Your task to perform on an android device: Open eBay Image 0: 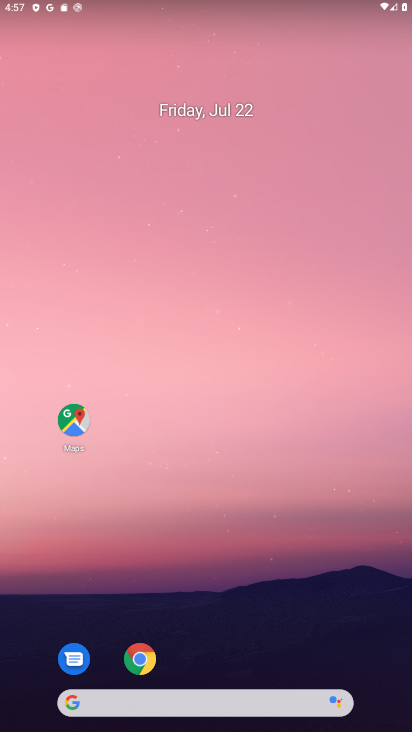
Step 0: press home button
Your task to perform on an android device: Open eBay Image 1: 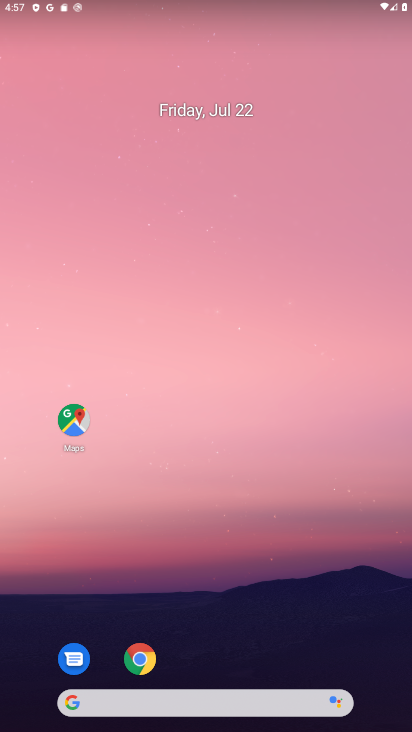
Step 1: click (140, 652)
Your task to perform on an android device: Open eBay Image 2: 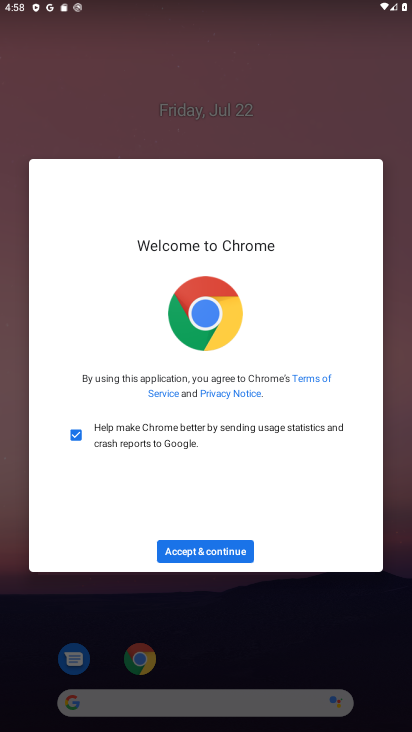
Step 2: click (200, 550)
Your task to perform on an android device: Open eBay Image 3: 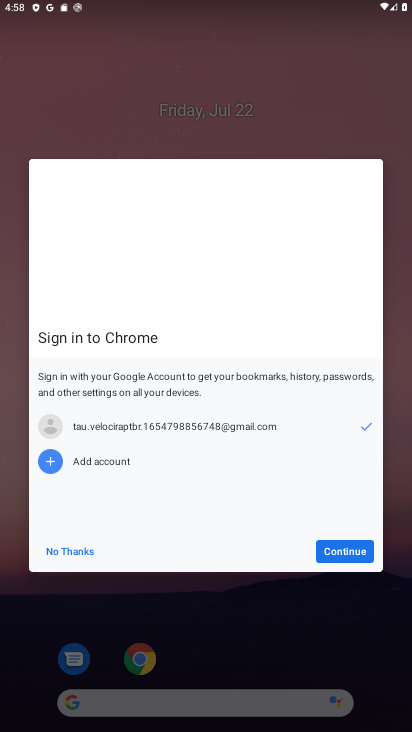
Step 3: click (349, 545)
Your task to perform on an android device: Open eBay Image 4: 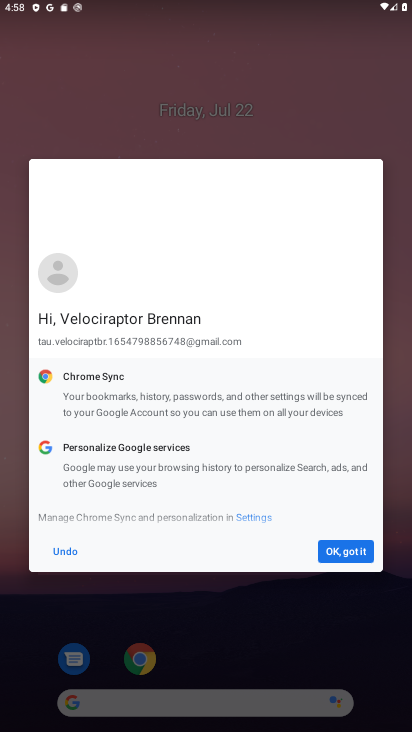
Step 4: click (344, 552)
Your task to perform on an android device: Open eBay Image 5: 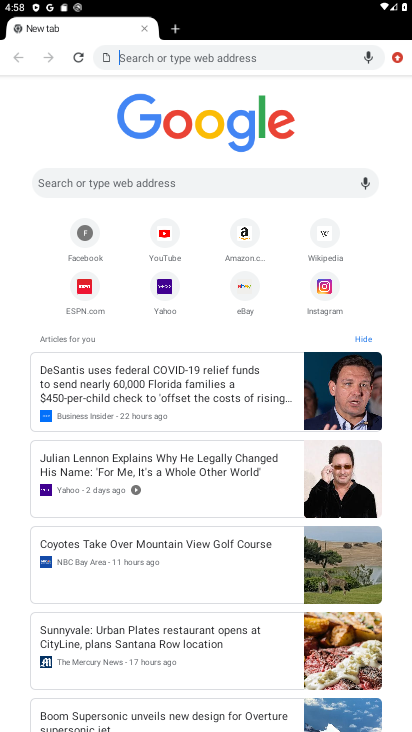
Step 5: click (245, 289)
Your task to perform on an android device: Open eBay Image 6: 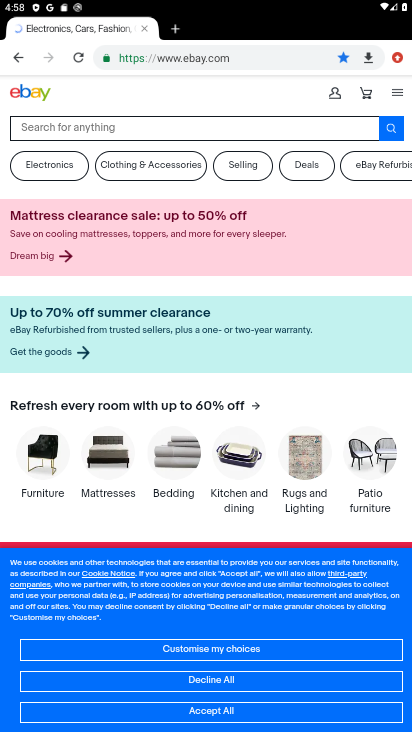
Step 6: click (207, 714)
Your task to perform on an android device: Open eBay Image 7: 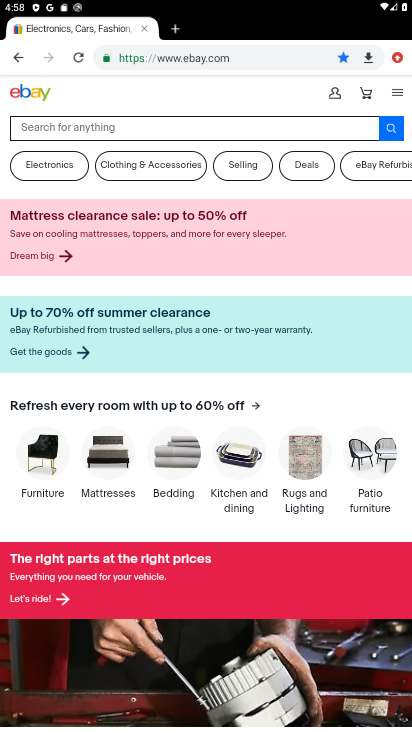
Step 7: task complete